Your task to perform on an android device: clear history in the chrome app Image 0: 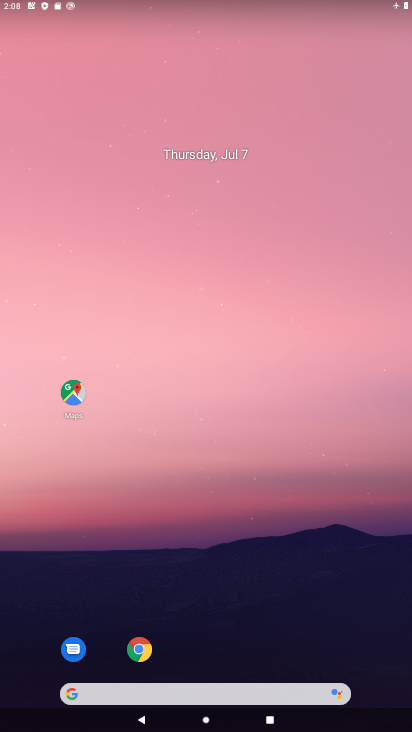
Step 0: drag from (236, 679) to (197, 150)
Your task to perform on an android device: clear history in the chrome app Image 1: 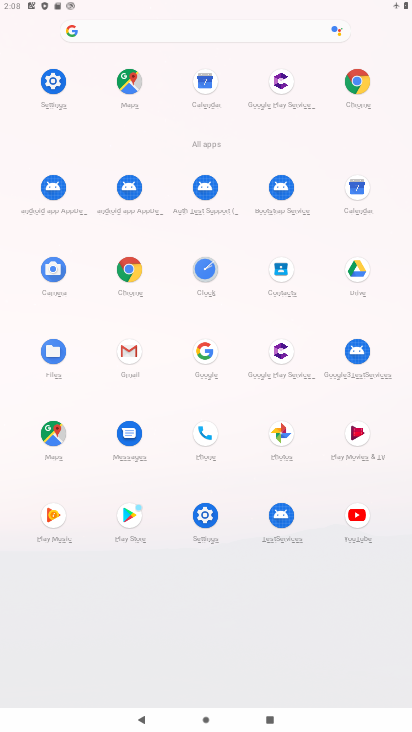
Step 1: click (134, 266)
Your task to perform on an android device: clear history in the chrome app Image 2: 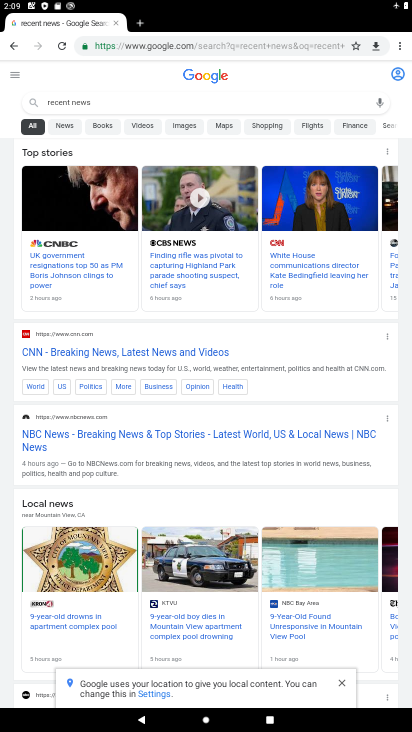
Step 2: click (399, 45)
Your task to perform on an android device: clear history in the chrome app Image 3: 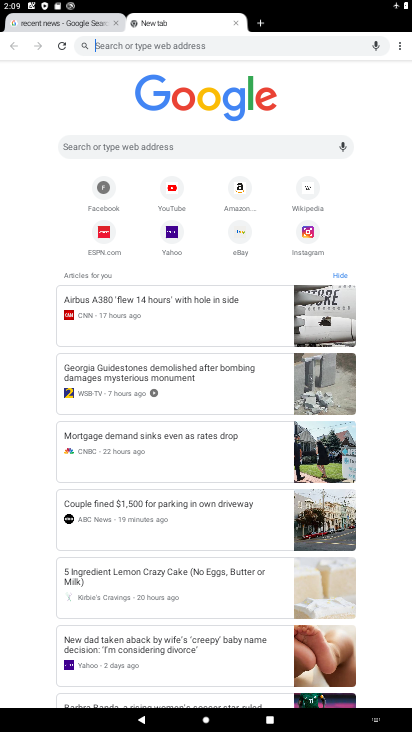
Step 3: click (396, 43)
Your task to perform on an android device: clear history in the chrome app Image 4: 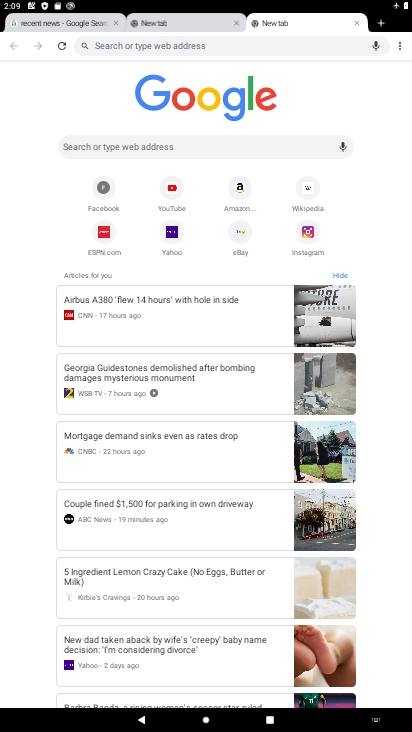
Step 4: click (401, 45)
Your task to perform on an android device: clear history in the chrome app Image 5: 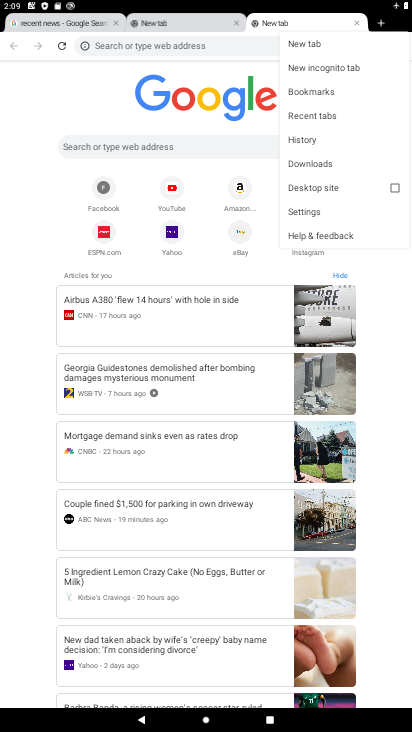
Step 5: click (339, 138)
Your task to perform on an android device: clear history in the chrome app Image 6: 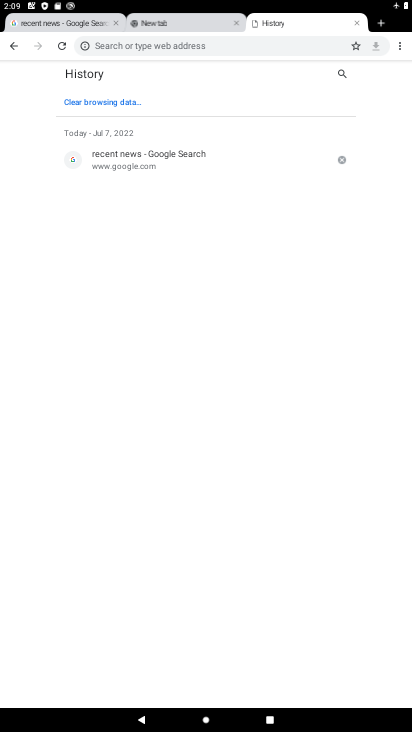
Step 6: click (341, 159)
Your task to perform on an android device: clear history in the chrome app Image 7: 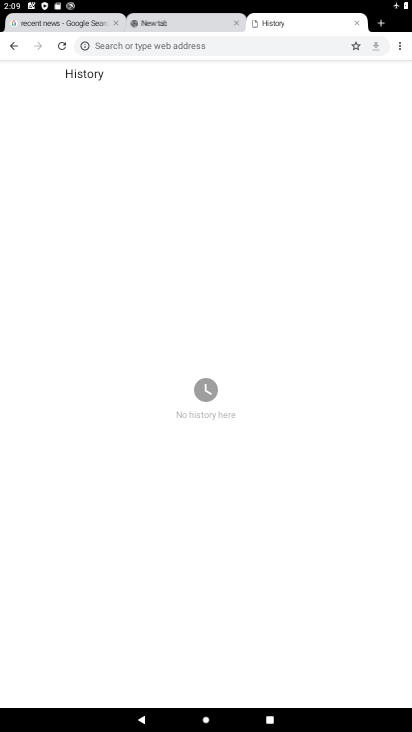
Step 7: task complete